Your task to perform on an android device: Play the last video I watched on Youtube Image 0: 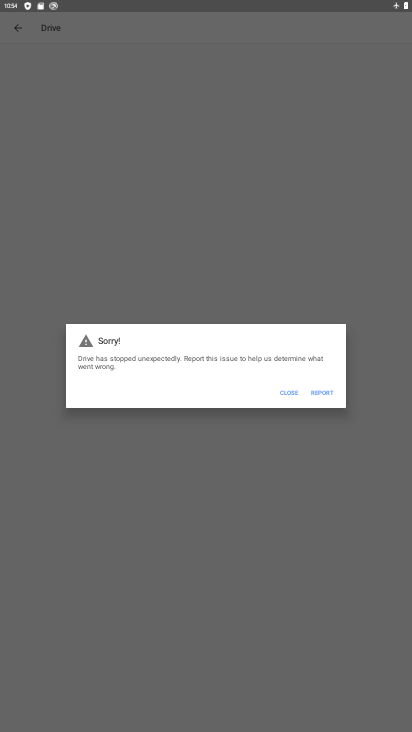
Step 0: press home button
Your task to perform on an android device: Play the last video I watched on Youtube Image 1: 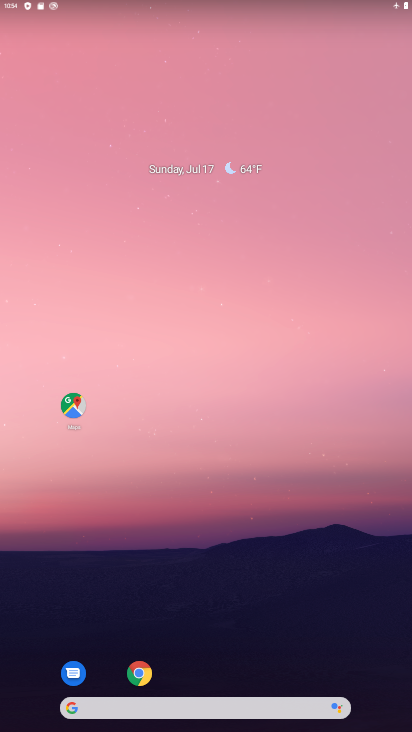
Step 1: drag from (278, 648) to (187, 165)
Your task to perform on an android device: Play the last video I watched on Youtube Image 2: 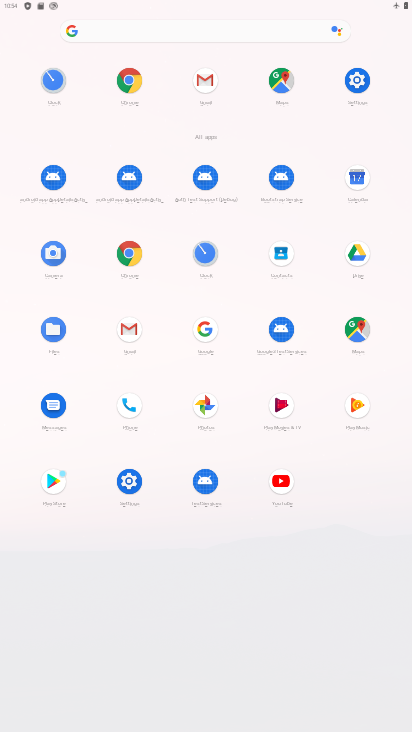
Step 2: click (278, 482)
Your task to perform on an android device: Play the last video I watched on Youtube Image 3: 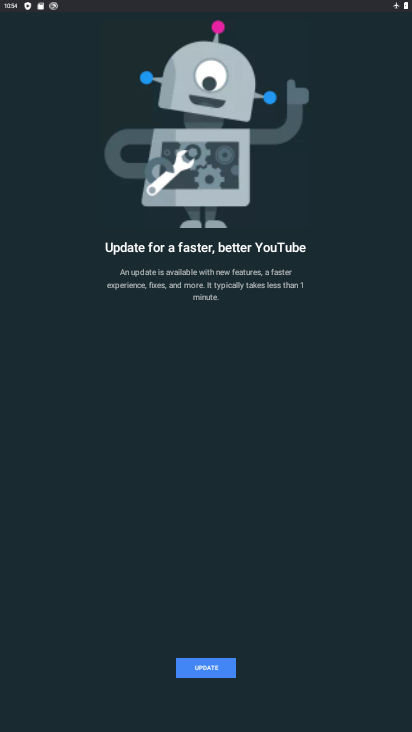
Step 3: click (210, 677)
Your task to perform on an android device: Play the last video I watched on Youtube Image 4: 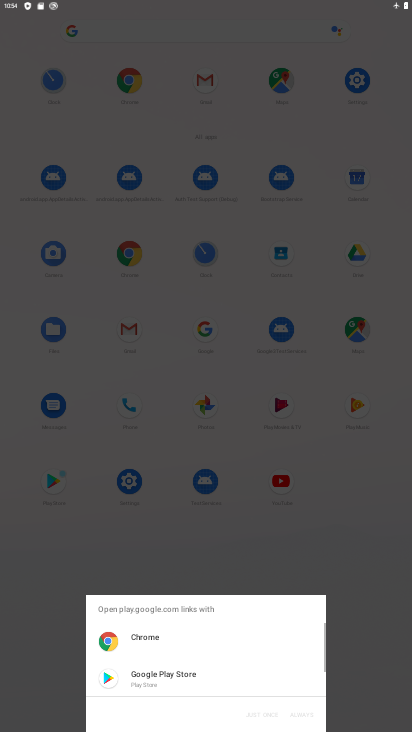
Step 4: click (210, 677)
Your task to perform on an android device: Play the last video I watched on Youtube Image 5: 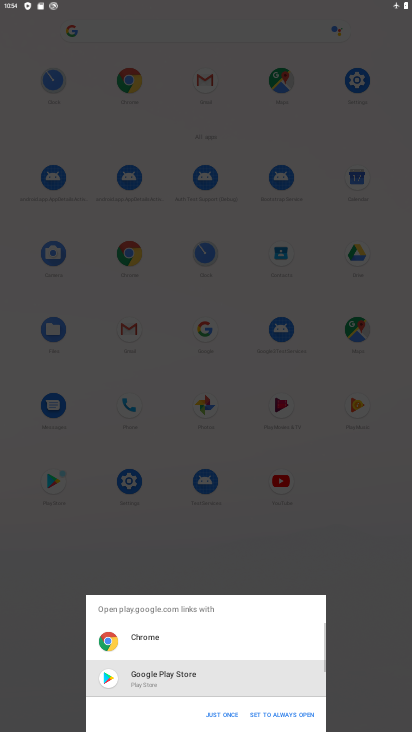
Step 5: click (240, 715)
Your task to perform on an android device: Play the last video I watched on Youtube Image 6: 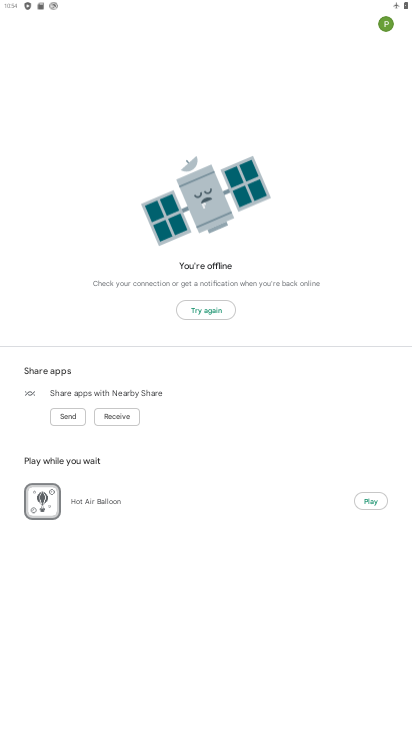
Step 6: task complete